Your task to perform on an android device: allow notifications from all sites in the chrome app Image 0: 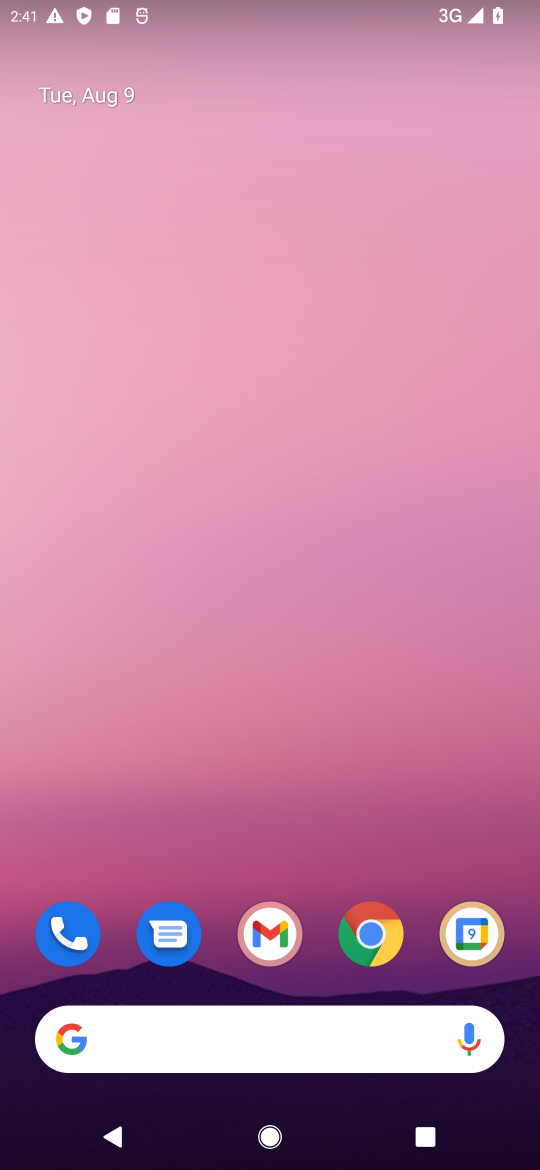
Step 0: click (363, 961)
Your task to perform on an android device: allow notifications from all sites in the chrome app Image 1: 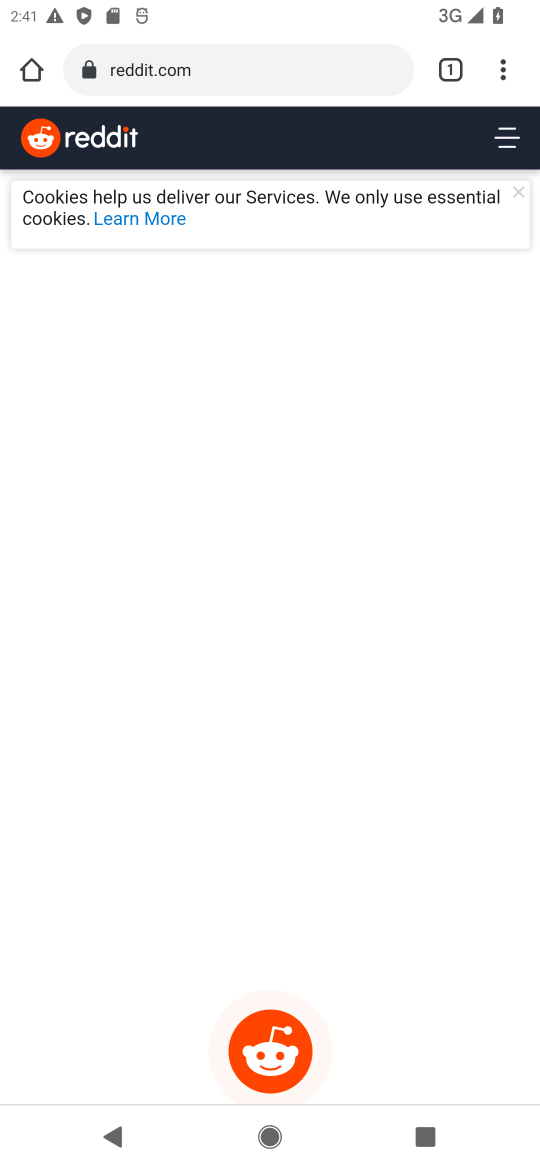
Step 1: task complete